Your task to perform on an android device: Go to Google Image 0: 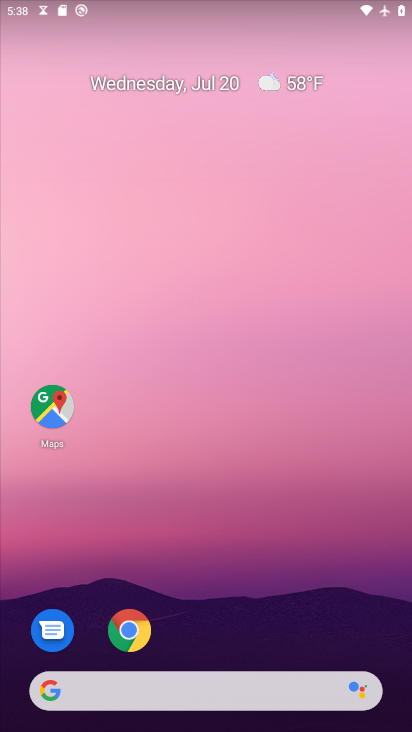
Step 0: press home button
Your task to perform on an android device: Go to Google Image 1: 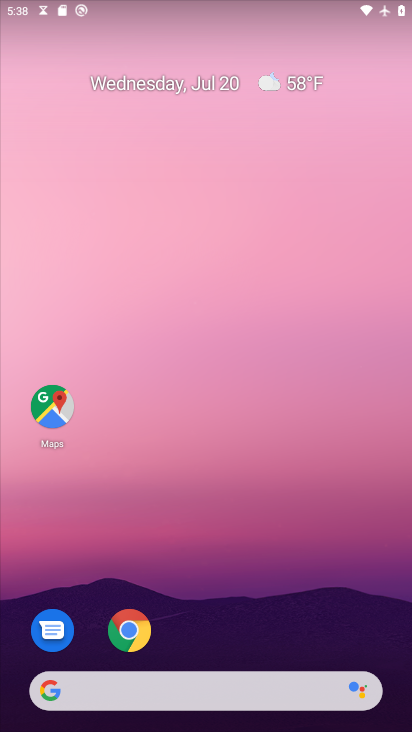
Step 1: click (58, 693)
Your task to perform on an android device: Go to Google Image 2: 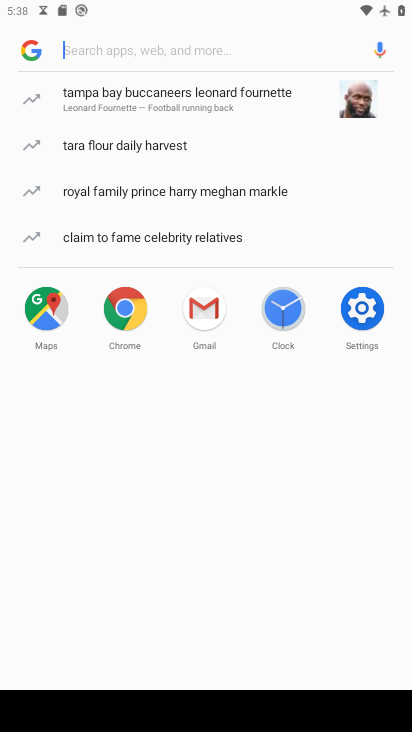
Step 2: task complete